Your task to perform on an android device: What's on my calendar today? Image 0: 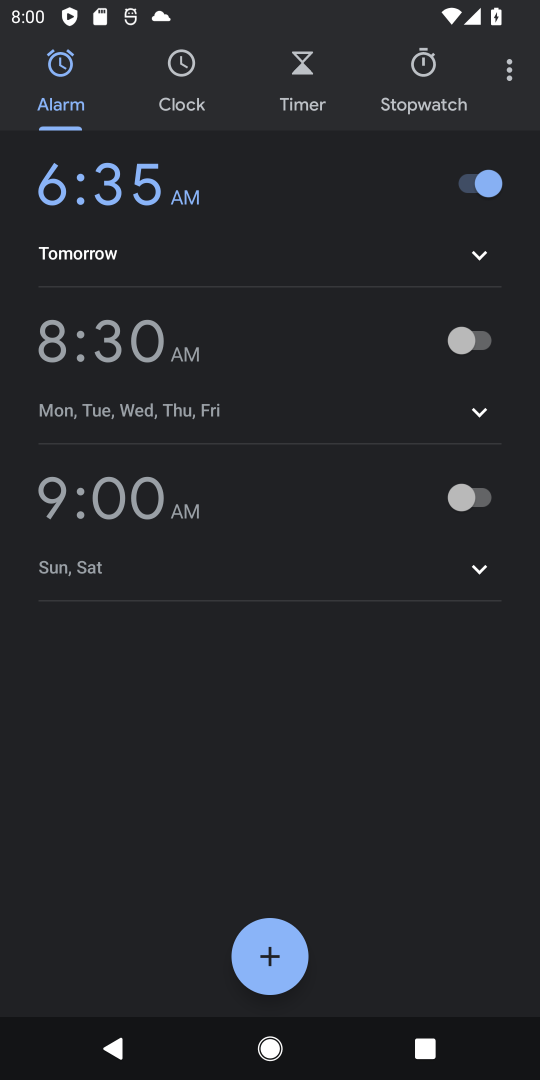
Step 0: press home button
Your task to perform on an android device: What's on my calendar today? Image 1: 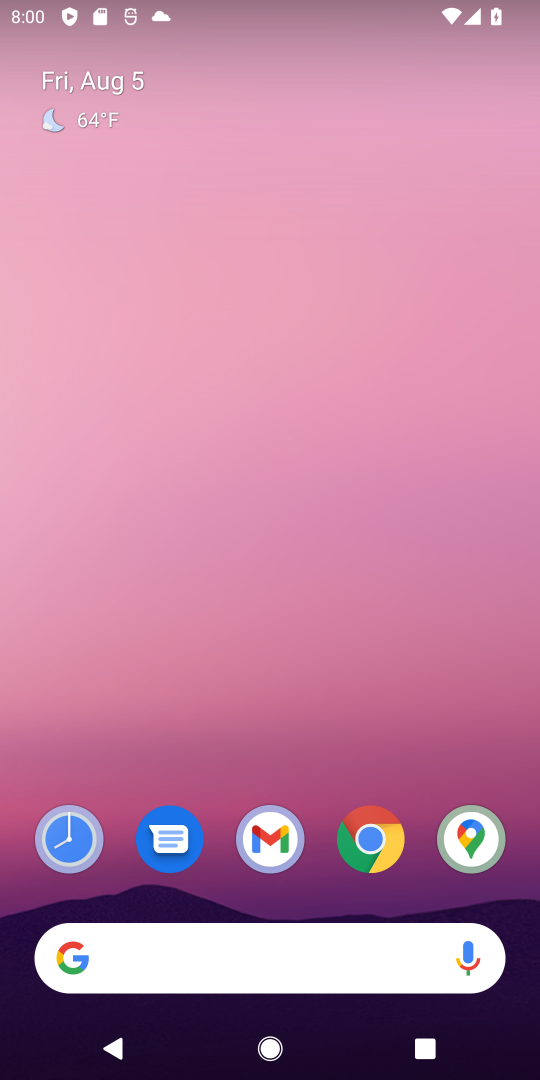
Step 1: drag from (314, 882) to (314, 174)
Your task to perform on an android device: What's on my calendar today? Image 2: 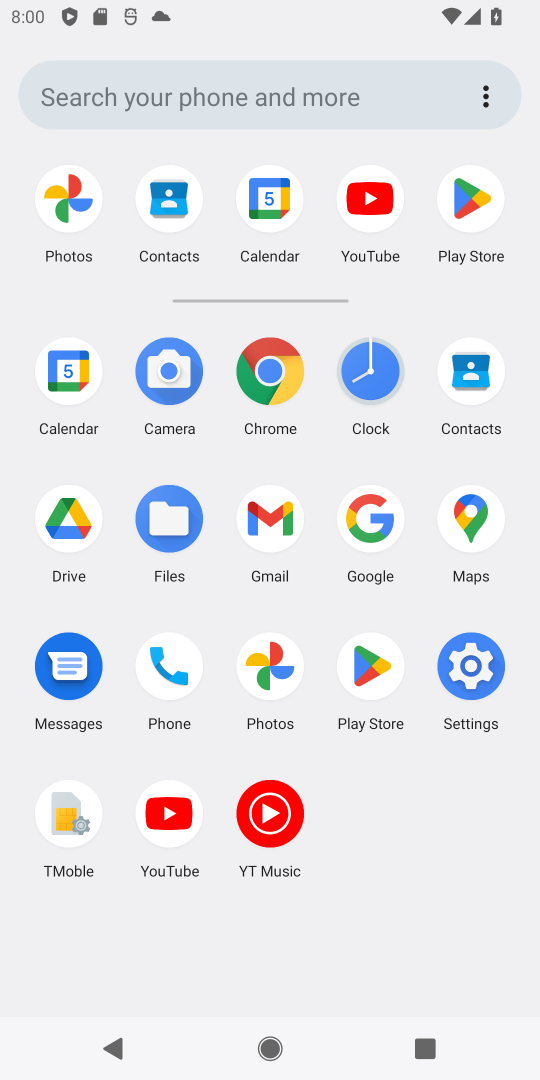
Step 2: click (73, 360)
Your task to perform on an android device: What's on my calendar today? Image 3: 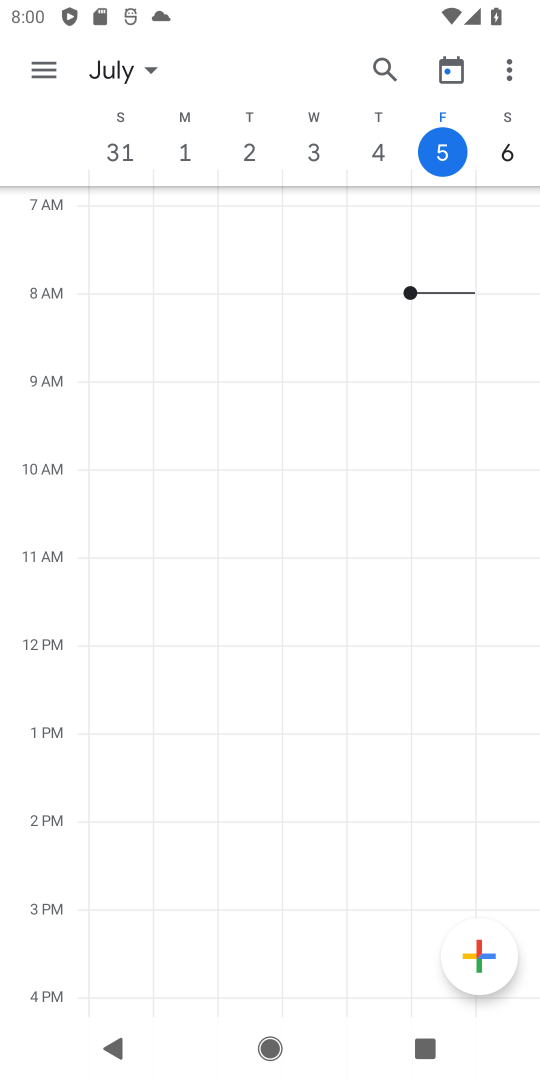
Step 3: click (148, 58)
Your task to perform on an android device: What's on my calendar today? Image 4: 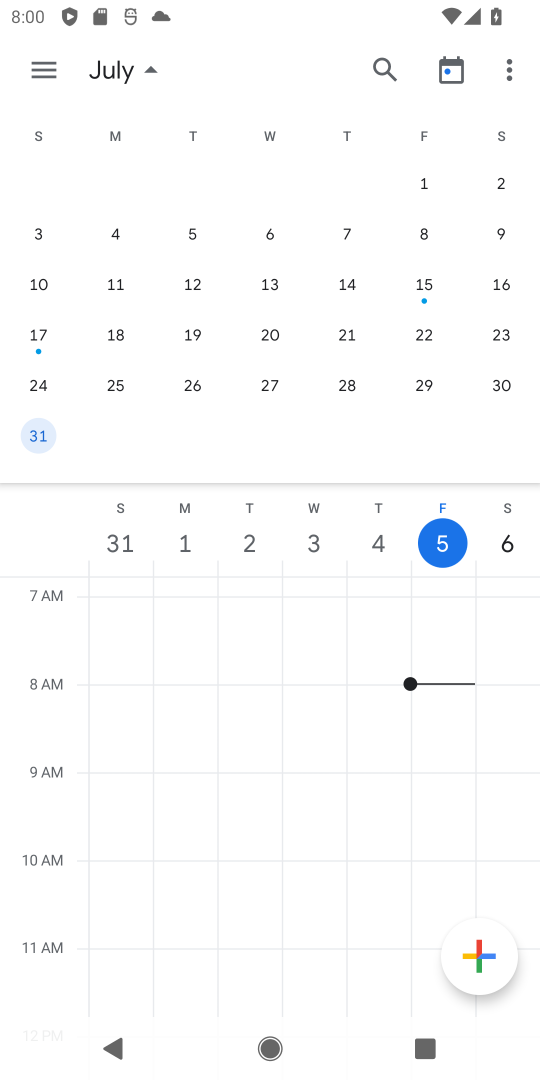
Step 4: drag from (451, 356) to (3, 293)
Your task to perform on an android device: What's on my calendar today? Image 5: 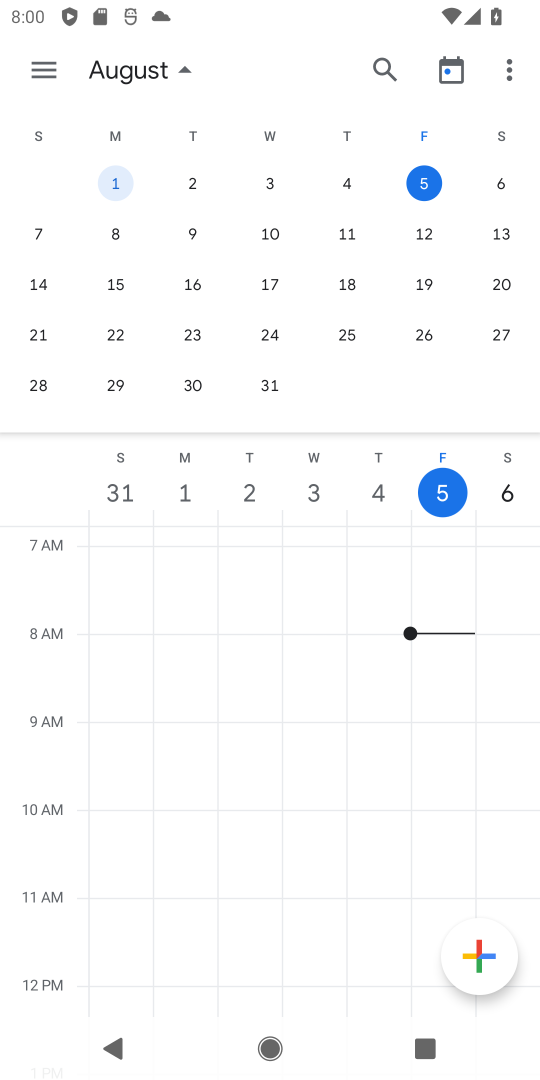
Step 5: click (425, 183)
Your task to perform on an android device: What's on my calendar today? Image 6: 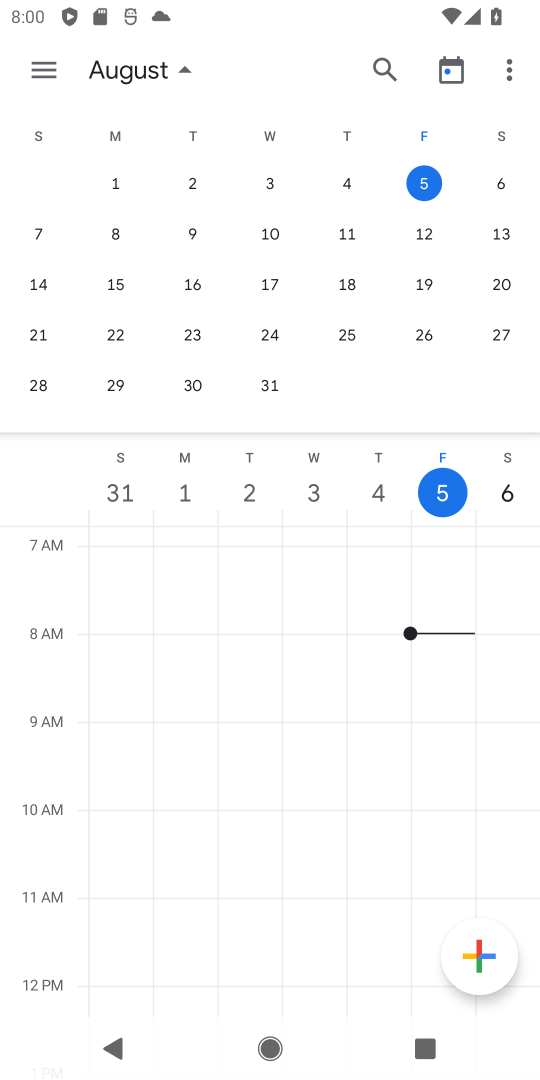
Step 6: click (449, 492)
Your task to perform on an android device: What's on my calendar today? Image 7: 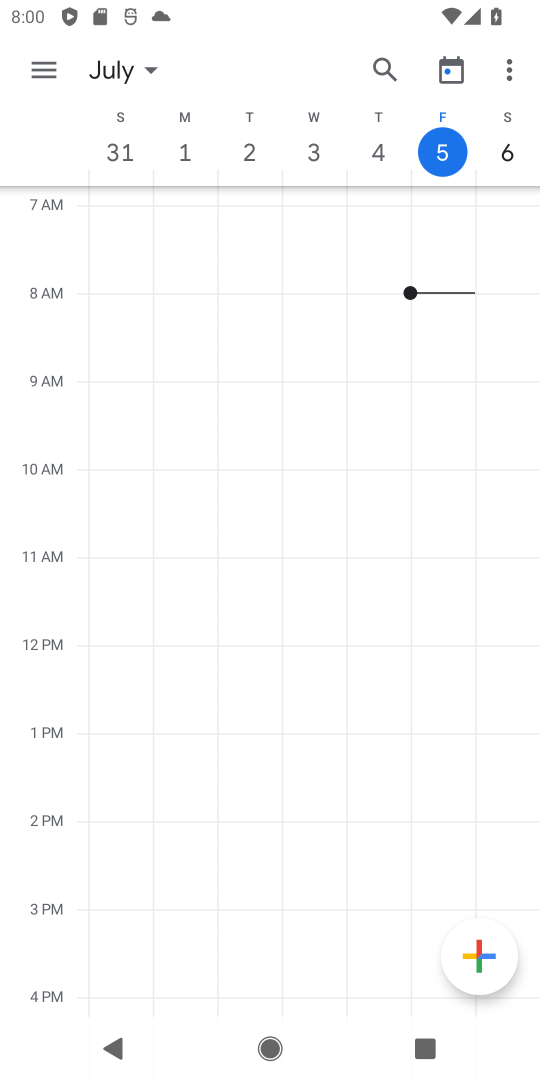
Step 7: click (440, 166)
Your task to perform on an android device: What's on my calendar today? Image 8: 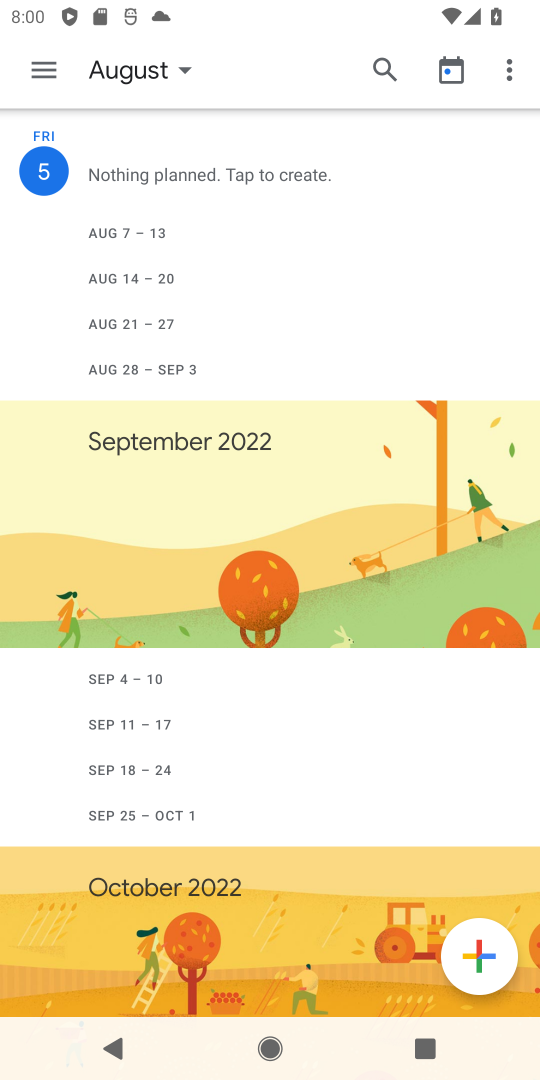
Step 8: task complete